Your task to perform on an android device: turn smart compose on in the gmail app Image 0: 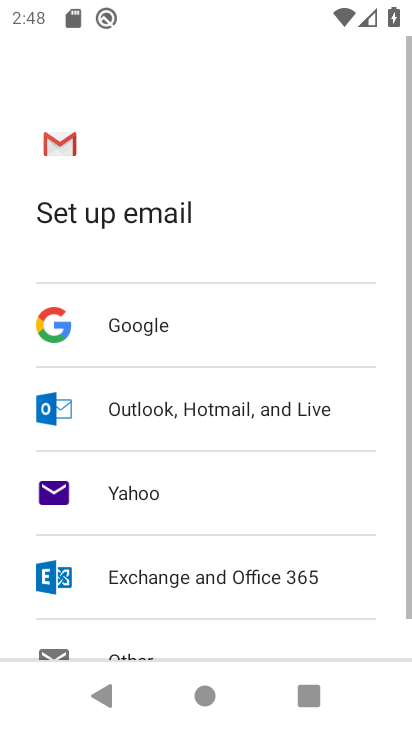
Step 0: press home button
Your task to perform on an android device: turn smart compose on in the gmail app Image 1: 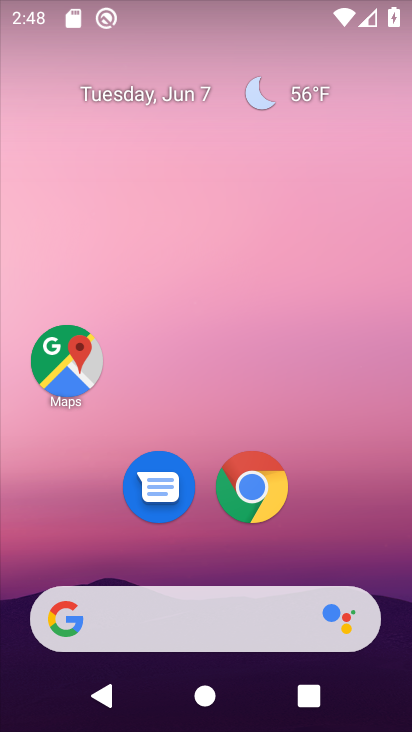
Step 1: drag from (384, 578) to (327, 259)
Your task to perform on an android device: turn smart compose on in the gmail app Image 2: 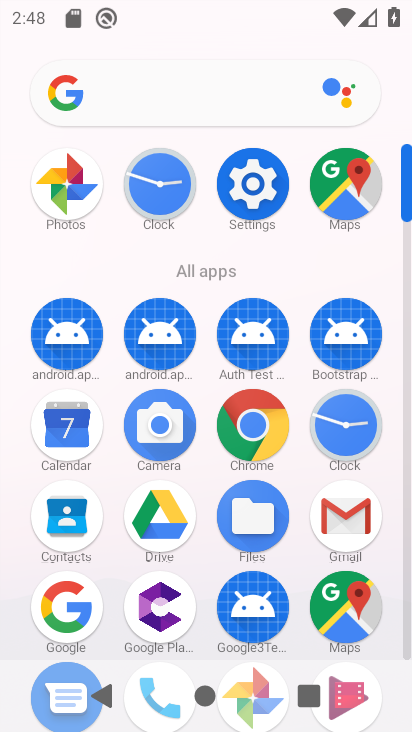
Step 2: click (365, 516)
Your task to perform on an android device: turn smart compose on in the gmail app Image 3: 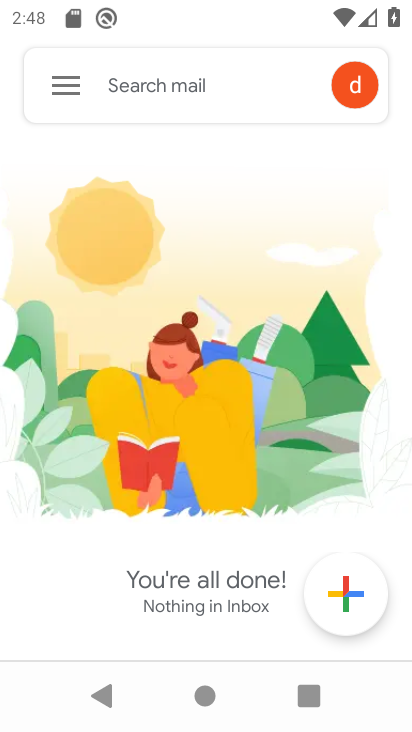
Step 3: click (71, 99)
Your task to perform on an android device: turn smart compose on in the gmail app Image 4: 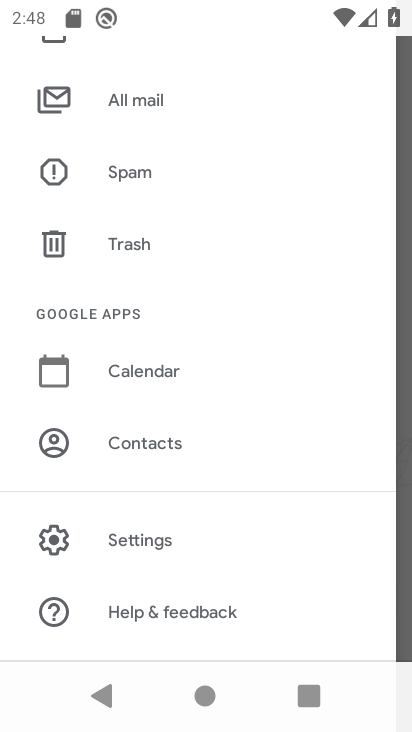
Step 4: click (223, 535)
Your task to perform on an android device: turn smart compose on in the gmail app Image 5: 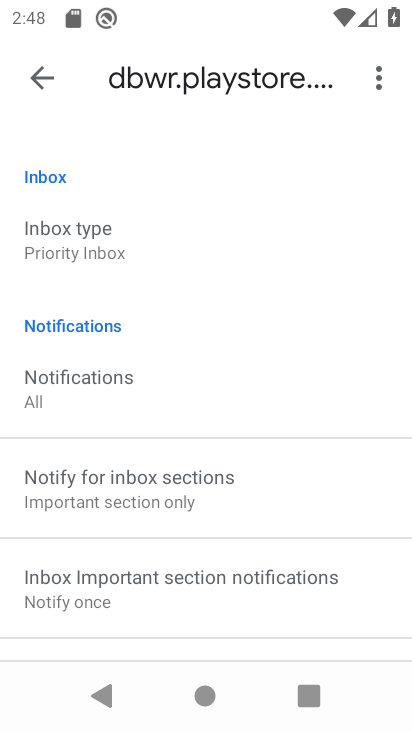
Step 5: task complete